Your task to perform on an android device: What's the news in Uruguay? Image 0: 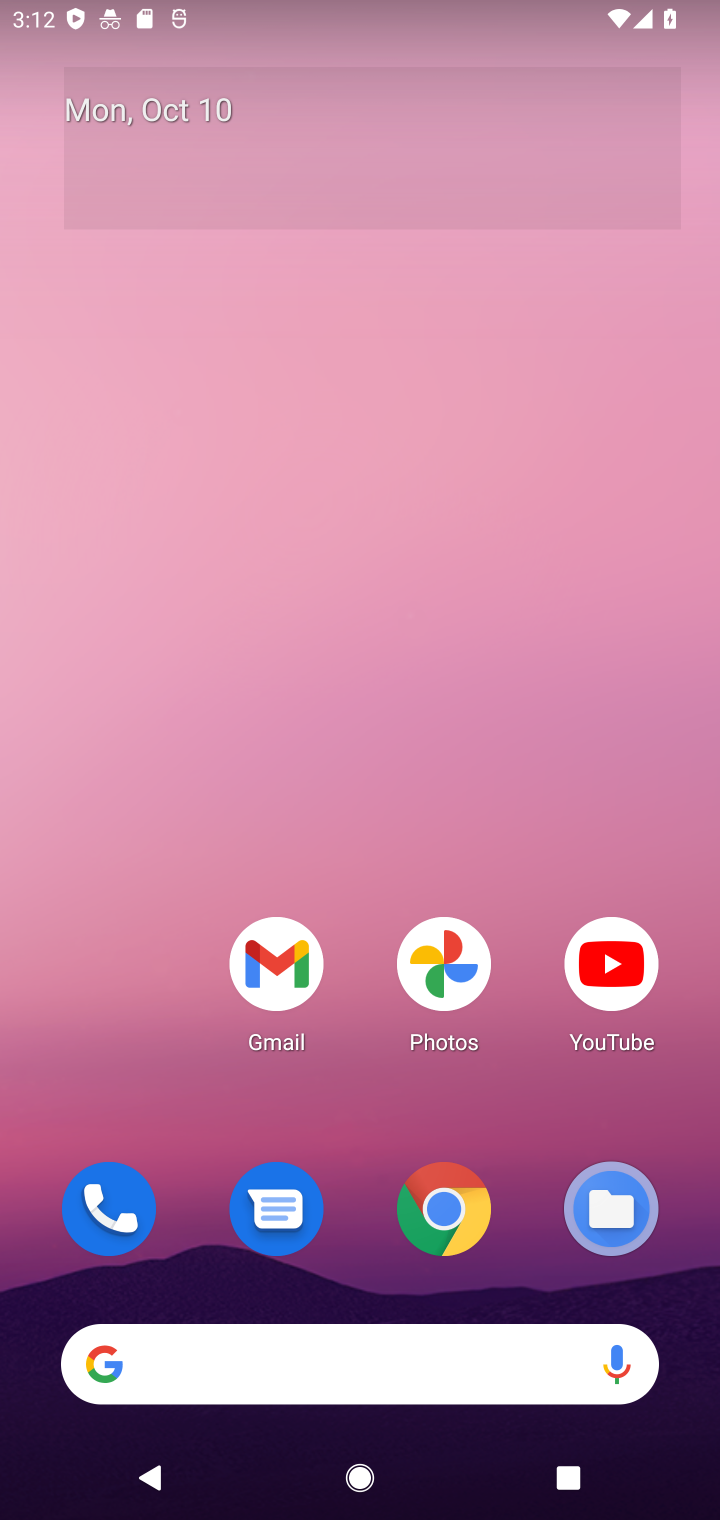
Step 0: click (469, 1201)
Your task to perform on an android device: What's the news in Uruguay? Image 1: 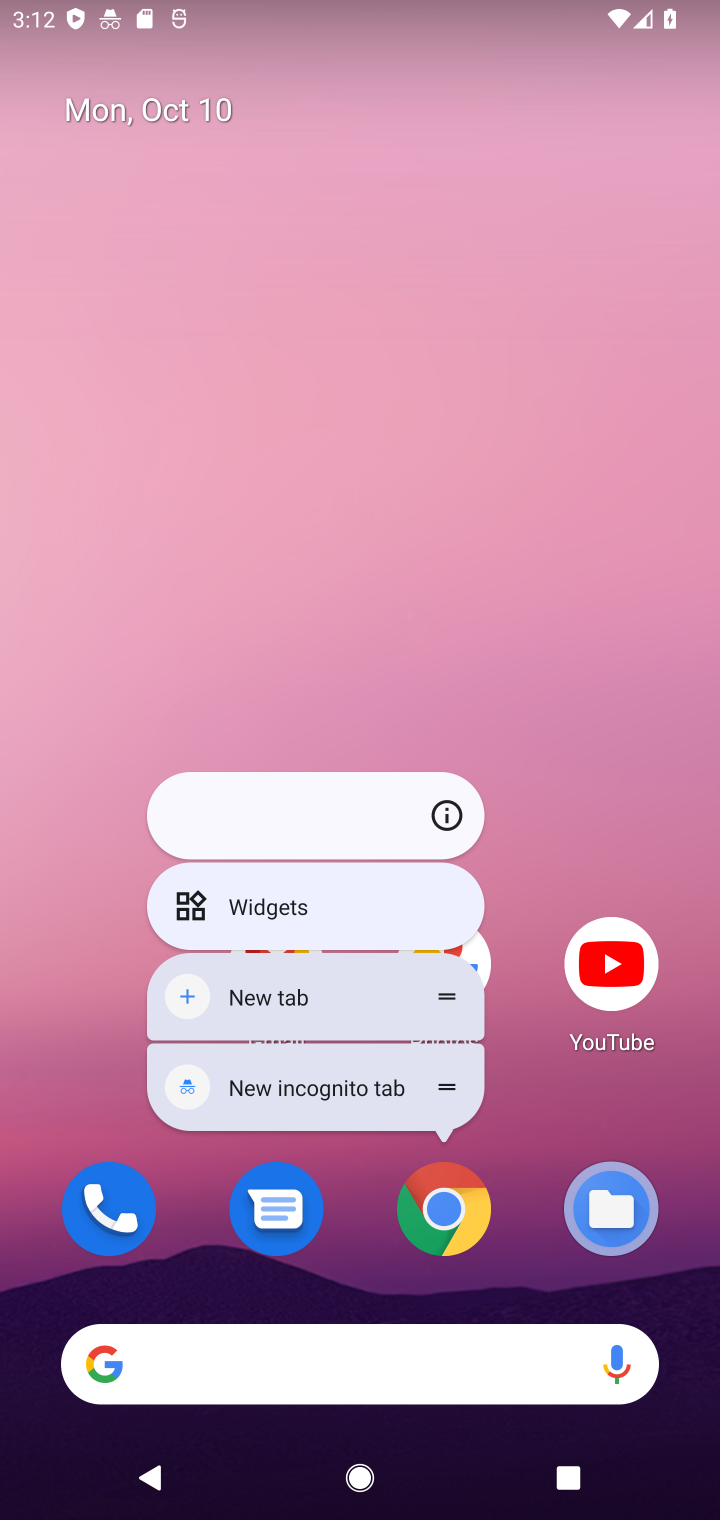
Step 1: click (469, 1201)
Your task to perform on an android device: What's the news in Uruguay? Image 2: 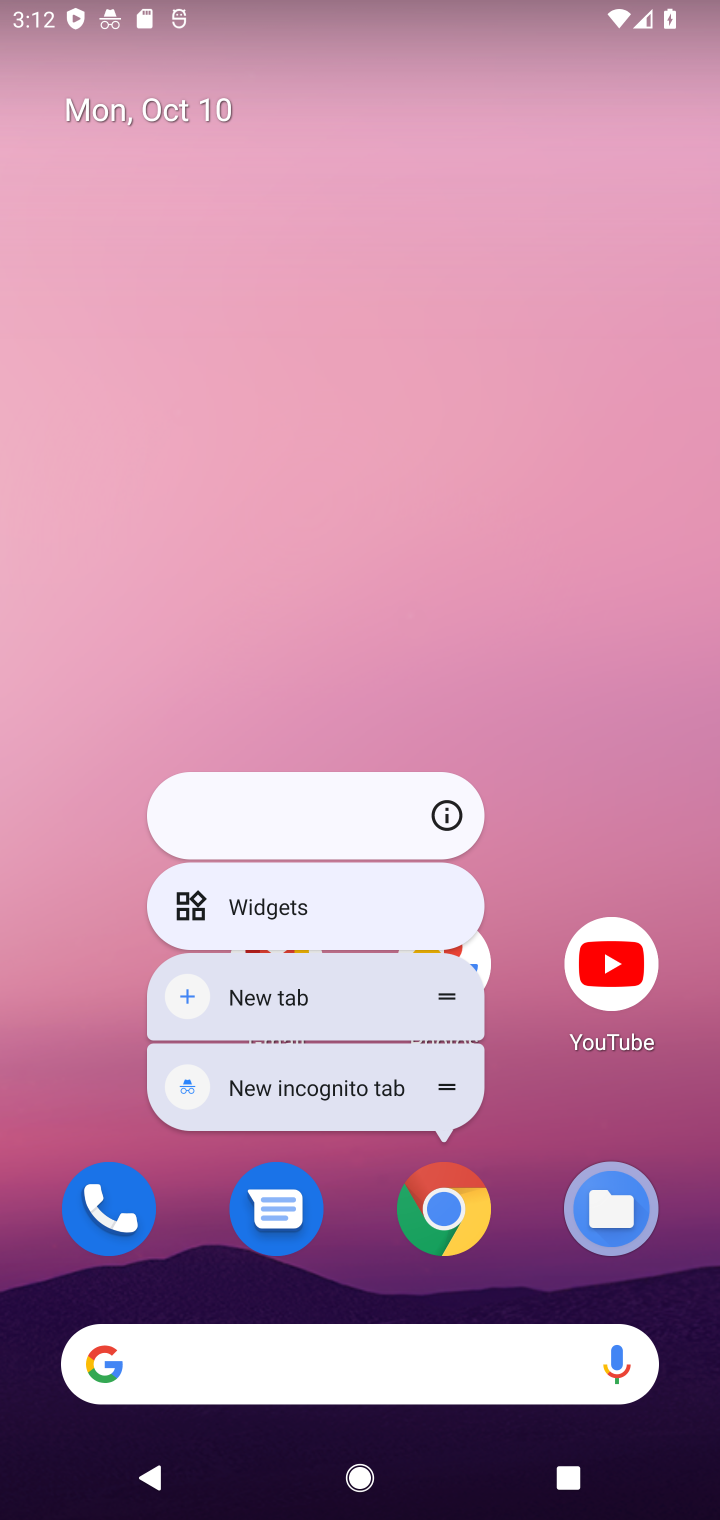
Step 2: click (469, 1201)
Your task to perform on an android device: What's the news in Uruguay? Image 3: 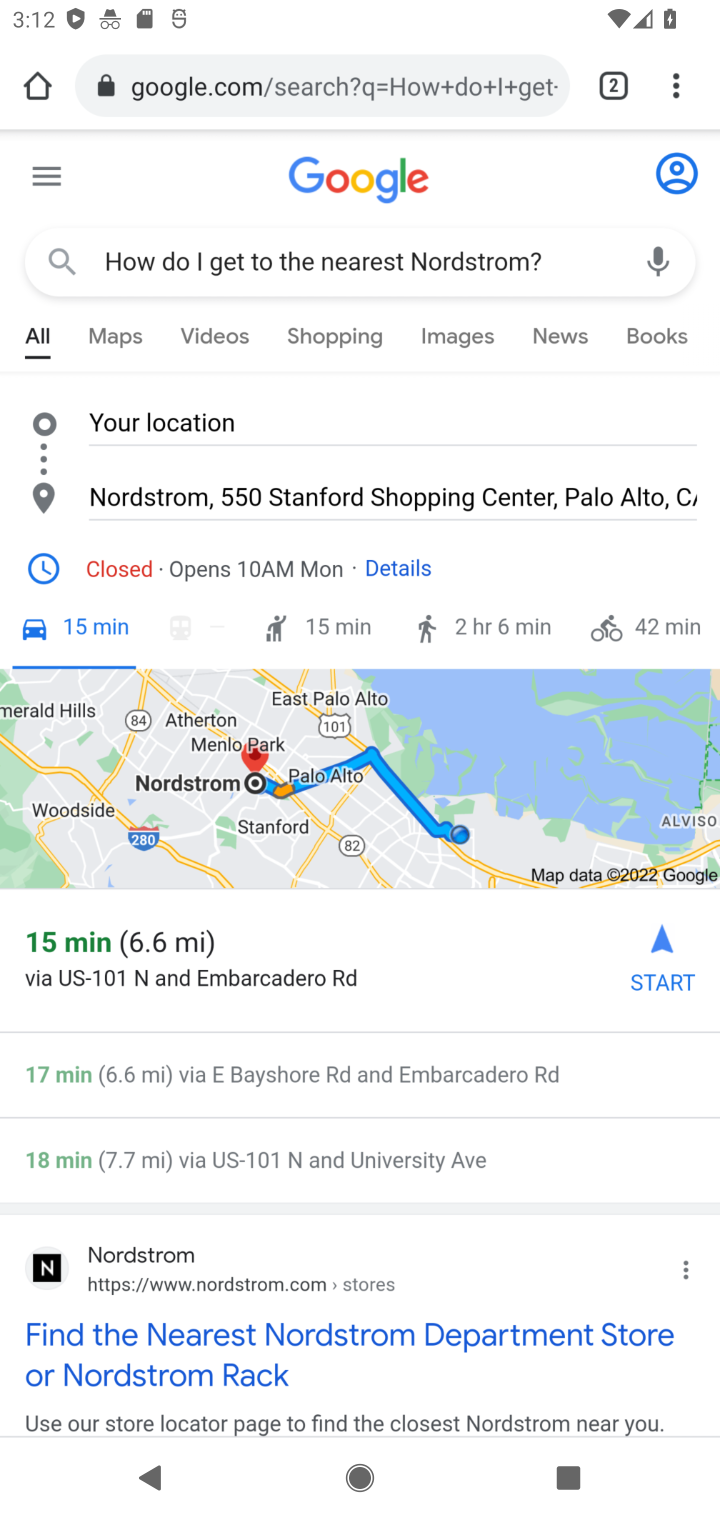
Step 3: click (469, 1201)
Your task to perform on an android device: What's the news in Uruguay? Image 4: 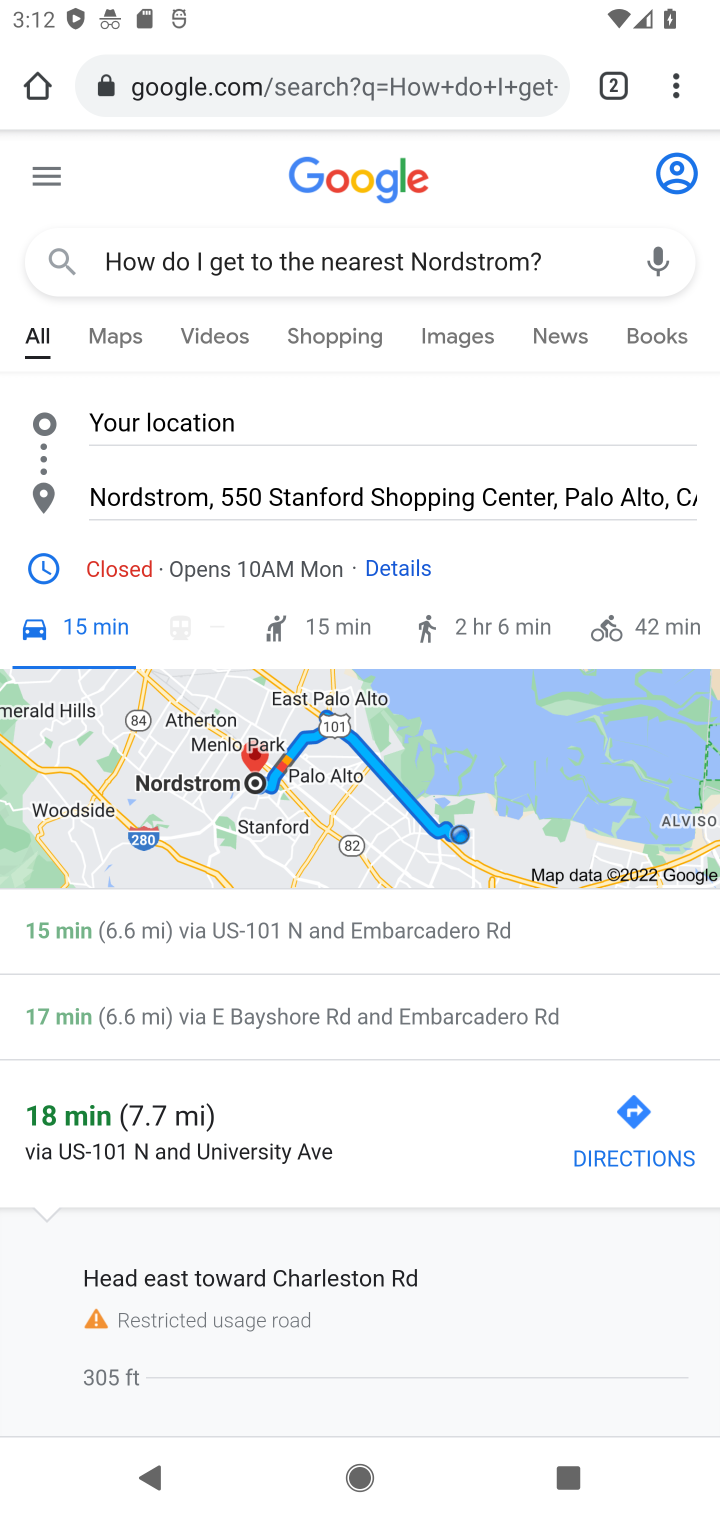
Step 4: click (564, 269)
Your task to perform on an android device: What's the news in Uruguay? Image 5: 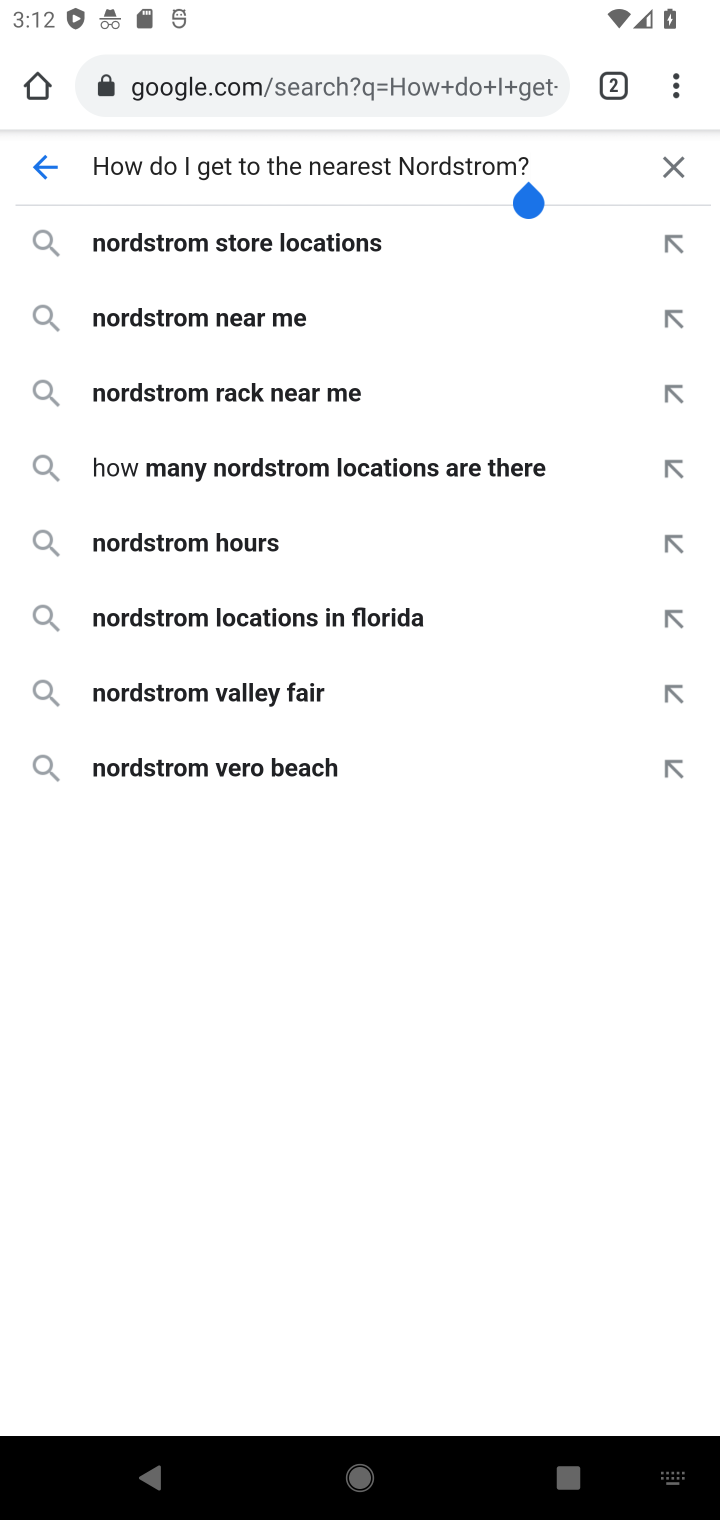
Step 5: click (683, 148)
Your task to perform on an android device: What's the news in Uruguay? Image 6: 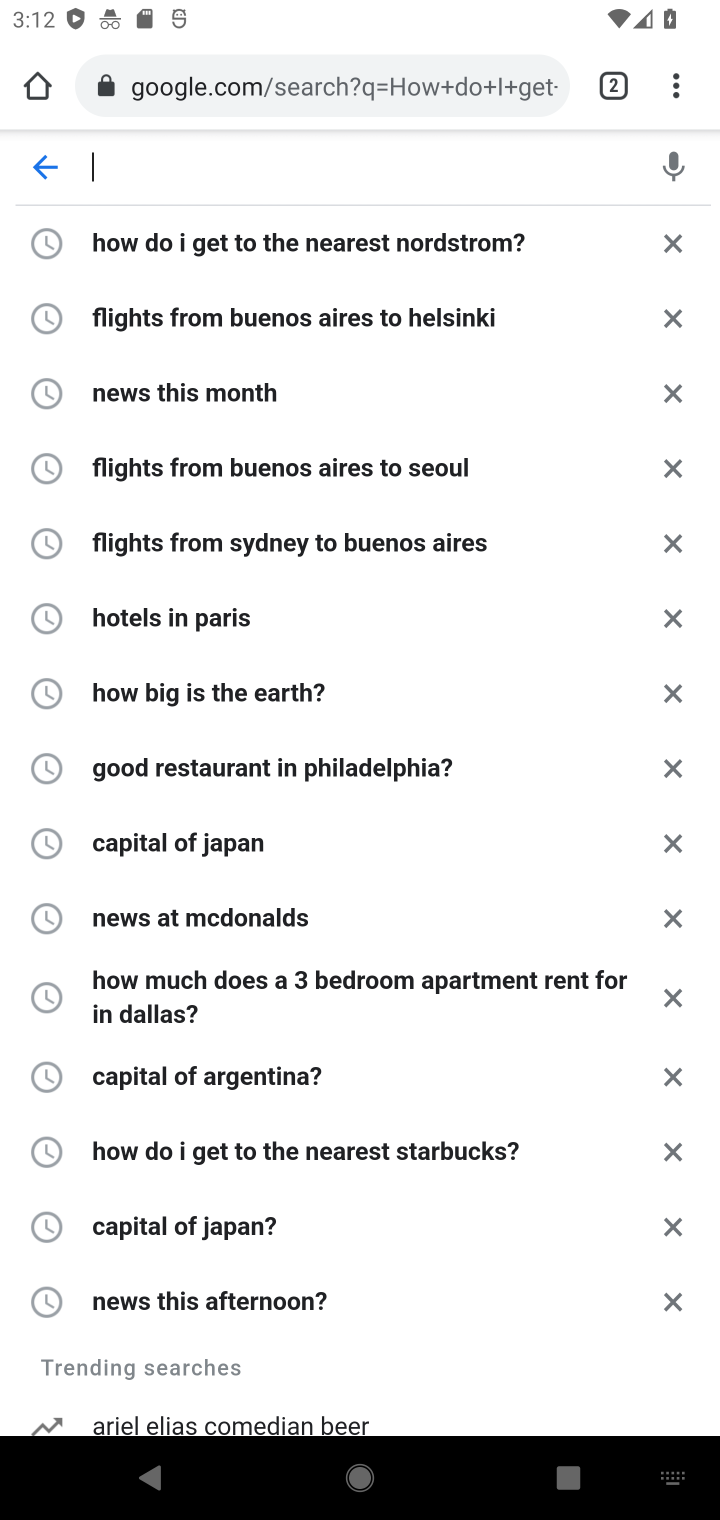
Step 6: type "news in uruguay"
Your task to perform on an android device: What's the news in Uruguay? Image 7: 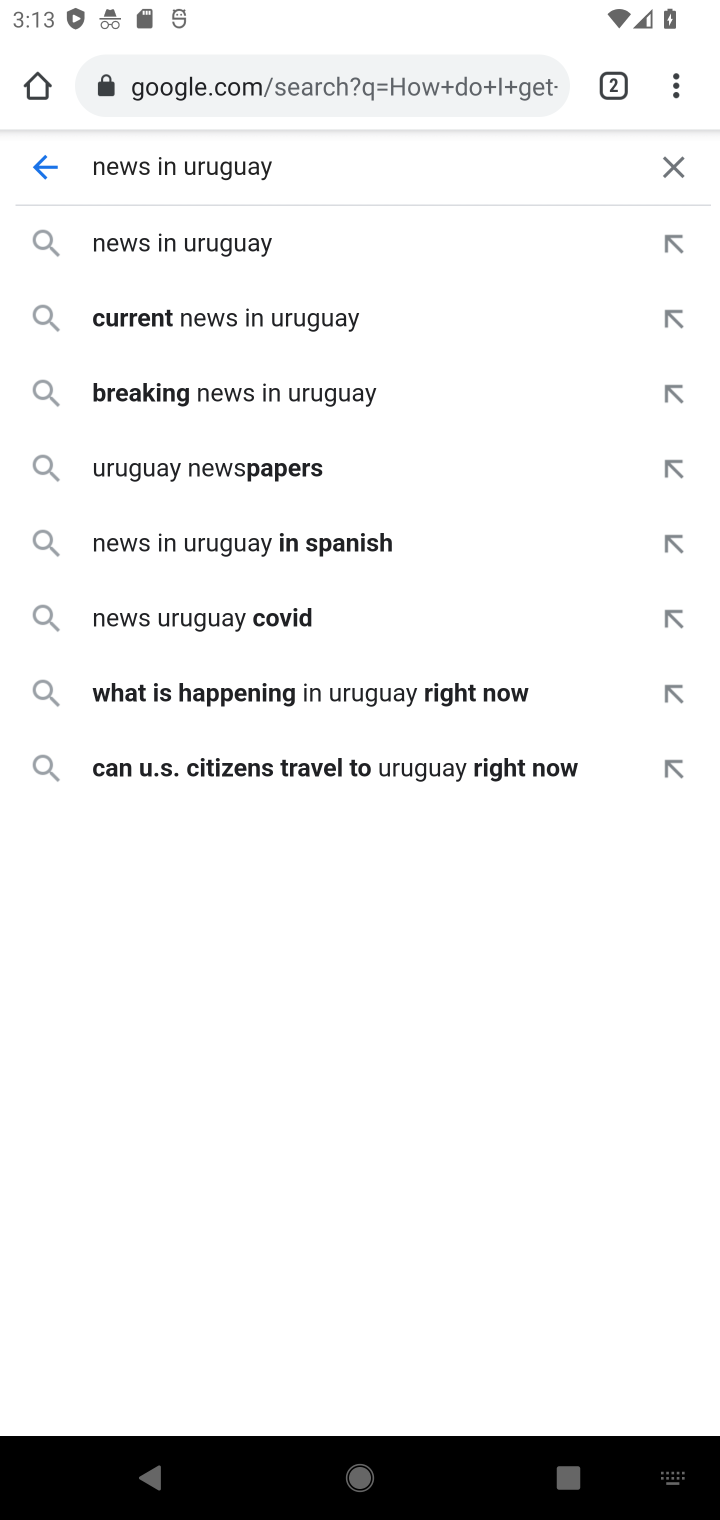
Step 7: click (231, 255)
Your task to perform on an android device: What's the news in Uruguay? Image 8: 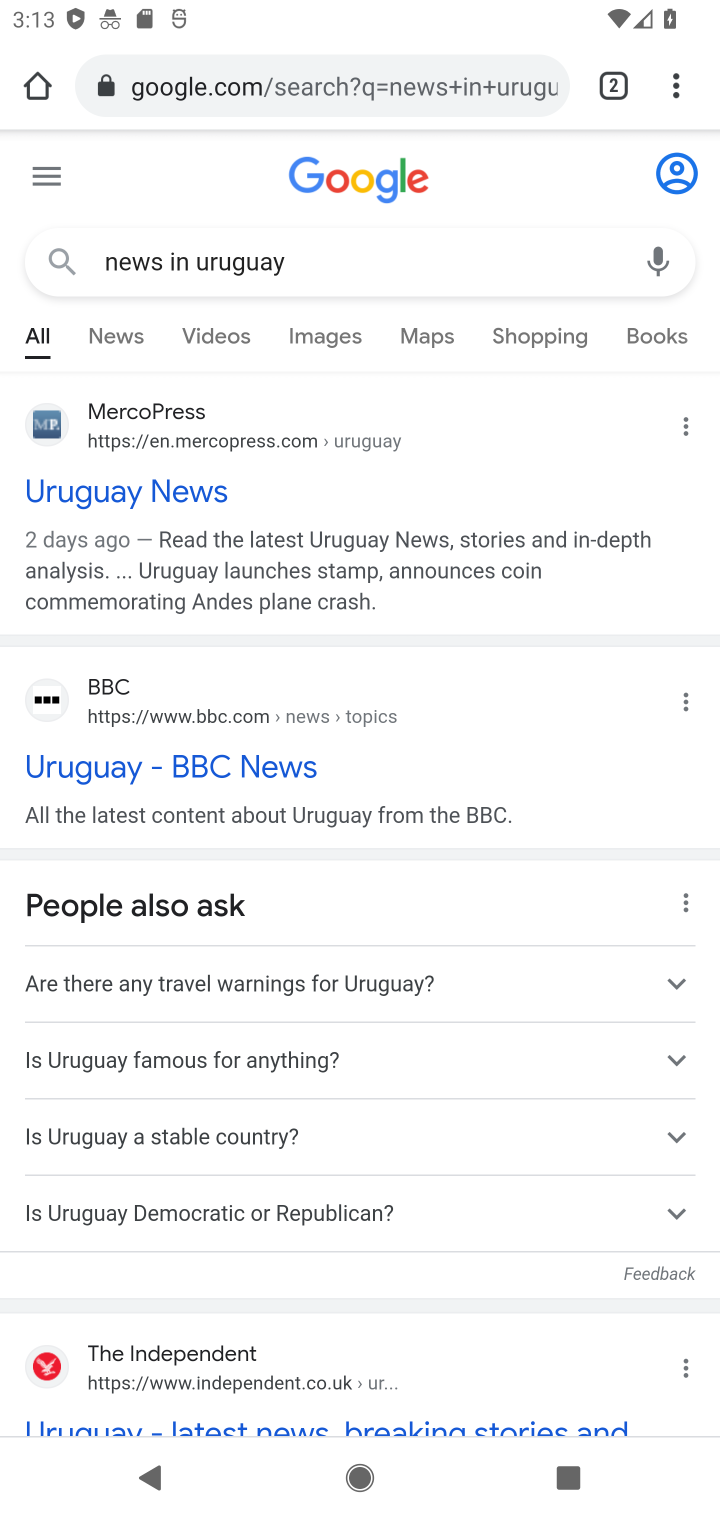
Step 8: click (122, 337)
Your task to perform on an android device: What's the news in Uruguay? Image 9: 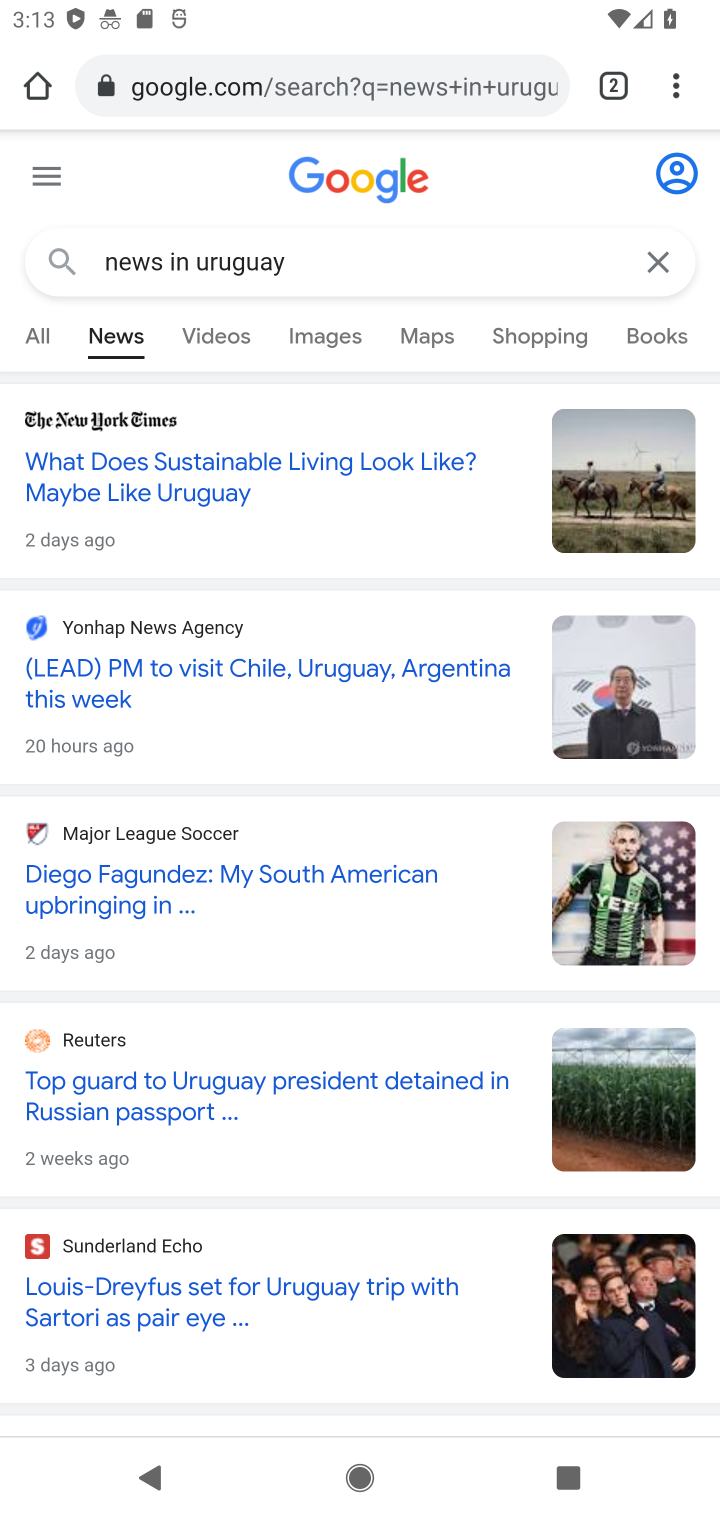
Step 9: task complete